Your task to perform on an android device: Is it going to rain today? Image 0: 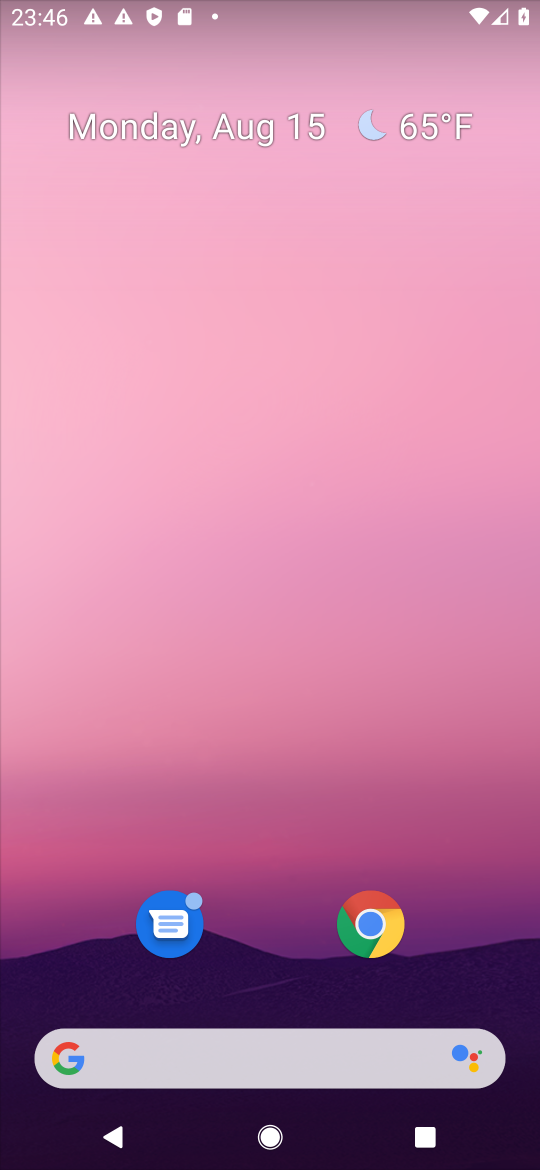
Step 0: drag from (469, 991) to (393, 178)
Your task to perform on an android device: Is it going to rain today? Image 1: 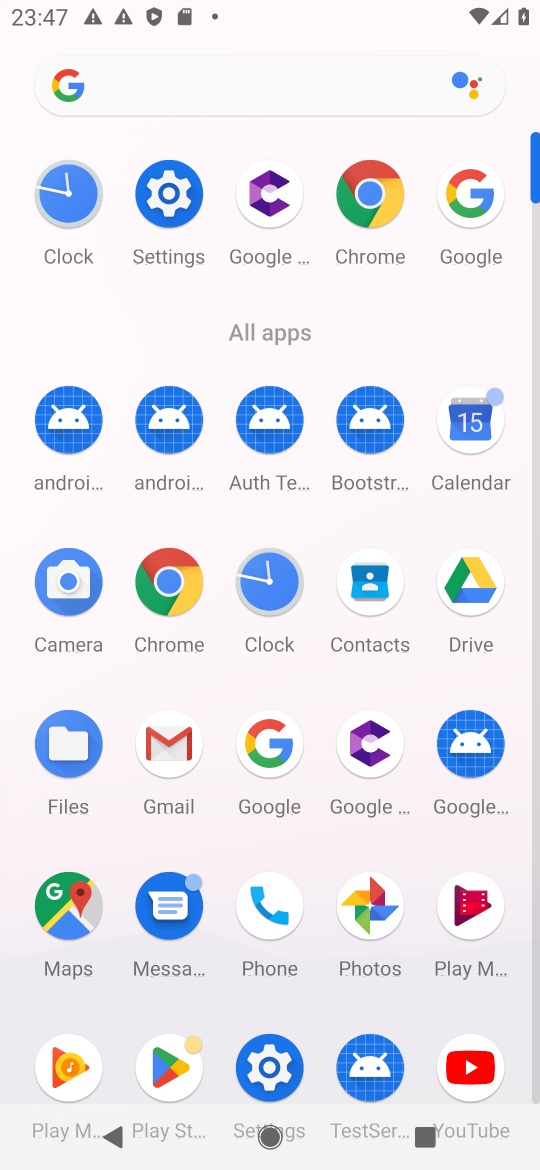
Step 1: drag from (328, 1011) to (298, 745)
Your task to perform on an android device: Is it going to rain today? Image 2: 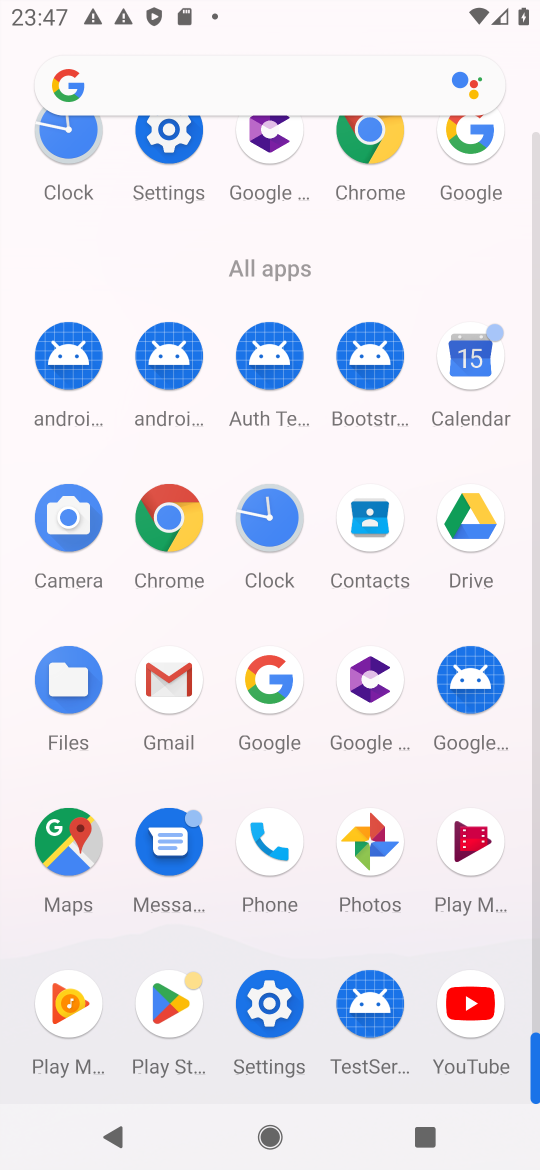
Step 2: click (249, 679)
Your task to perform on an android device: Is it going to rain today? Image 3: 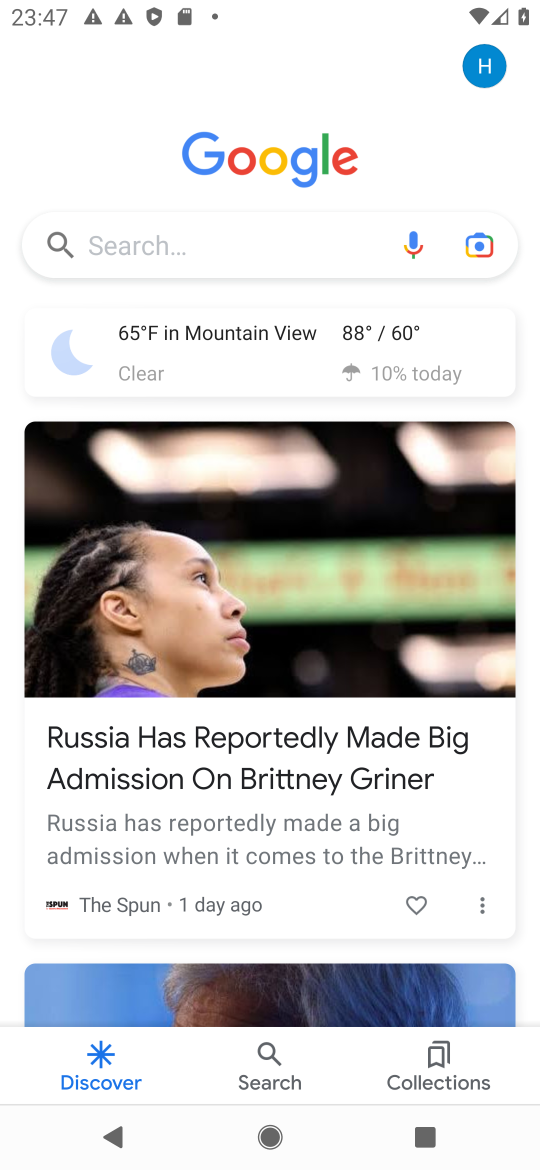
Step 3: click (220, 251)
Your task to perform on an android device: Is it going to rain today? Image 4: 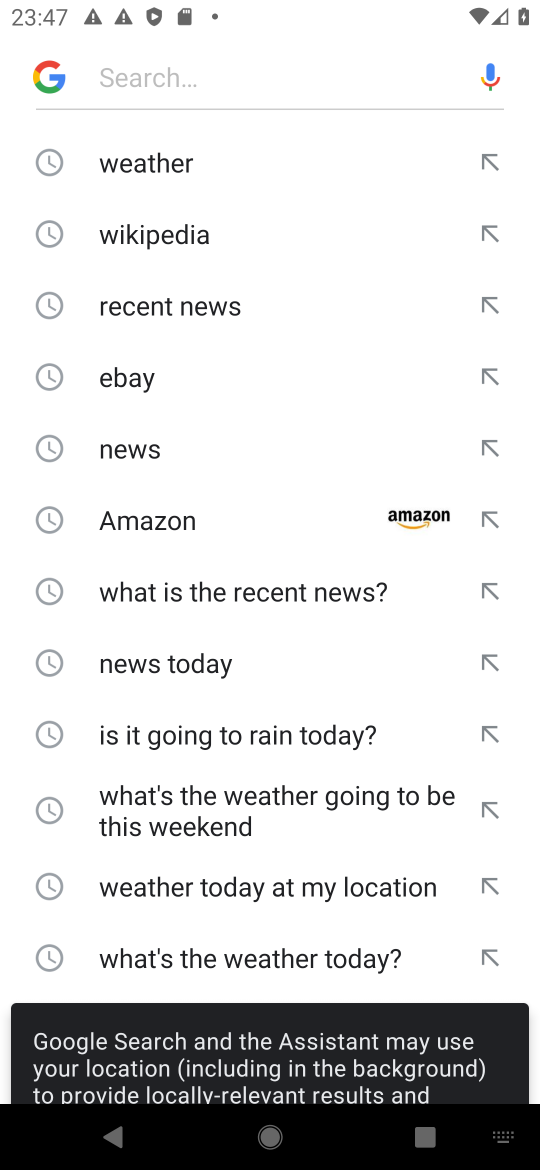
Step 4: click (192, 172)
Your task to perform on an android device: Is it going to rain today? Image 5: 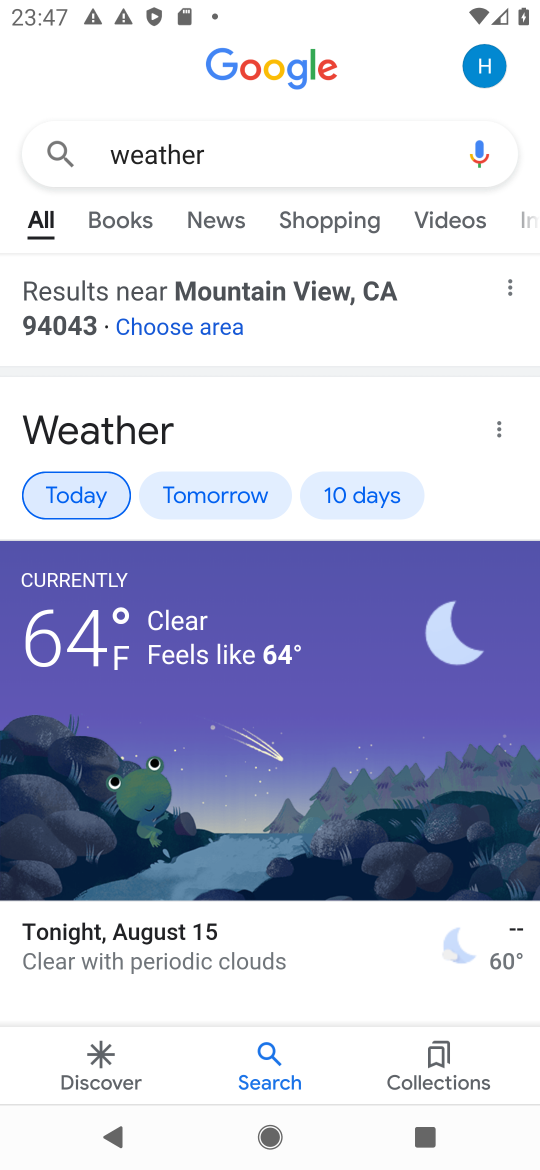
Step 5: task complete